Your task to perform on an android device: check google app version Image 0: 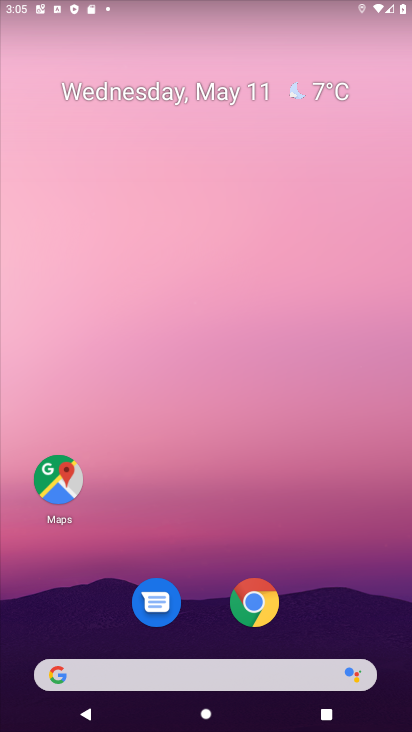
Step 0: press home button
Your task to perform on an android device: check google app version Image 1: 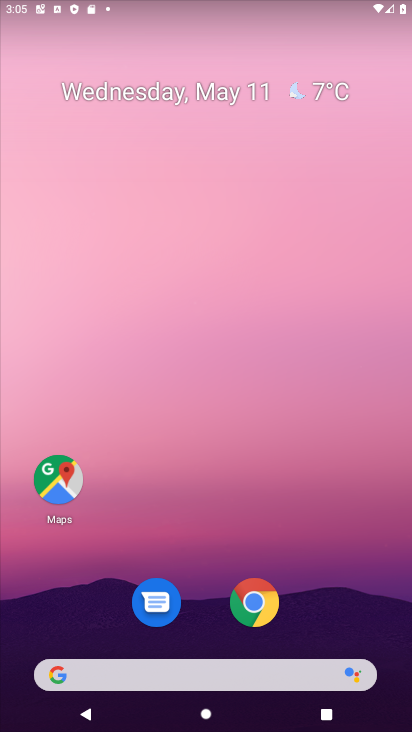
Step 1: drag from (323, 569) to (407, 296)
Your task to perform on an android device: check google app version Image 2: 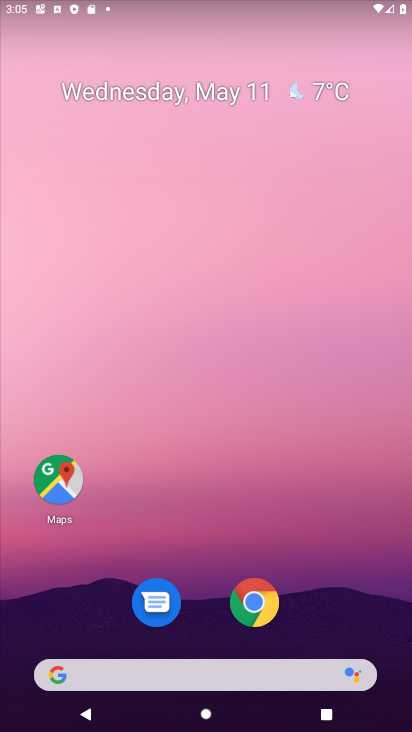
Step 2: drag from (205, 557) to (366, 128)
Your task to perform on an android device: check google app version Image 3: 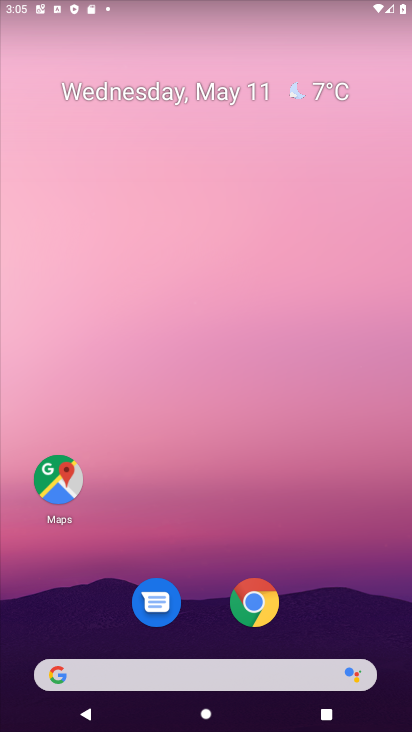
Step 3: click (122, 673)
Your task to perform on an android device: check google app version Image 4: 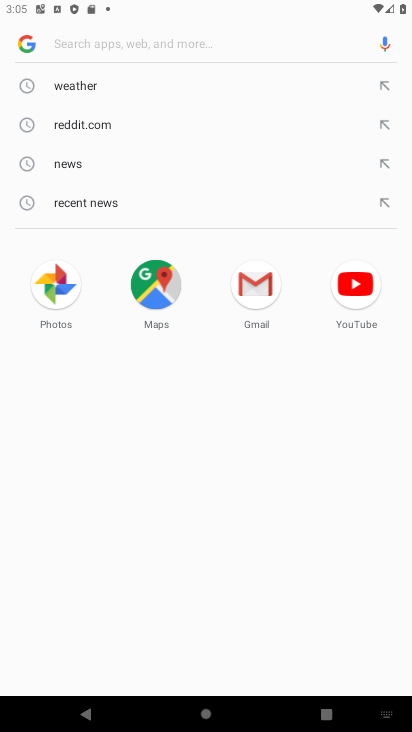
Step 4: click (206, 33)
Your task to perform on an android device: check google app version Image 5: 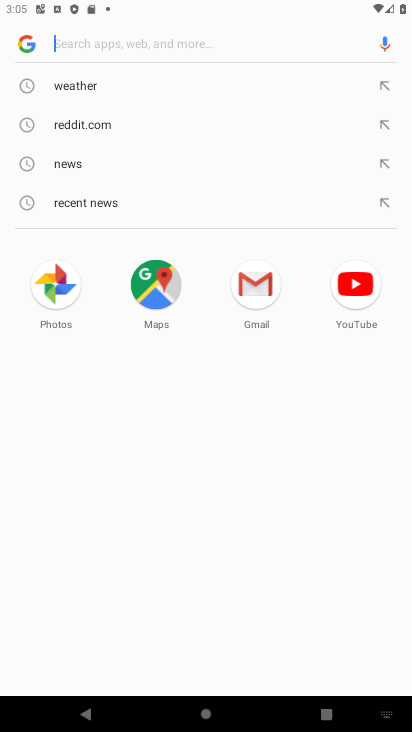
Step 5: click (207, 34)
Your task to perform on an android device: check google app version Image 6: 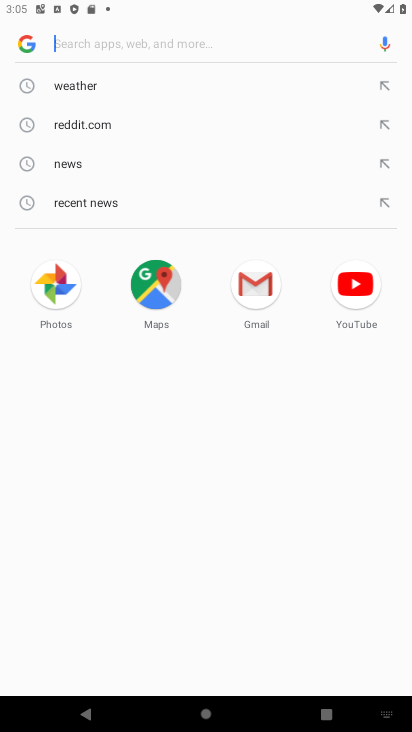
Step 6: click (207, 34)
Your task to perform on an android device: check google app version Image 7: 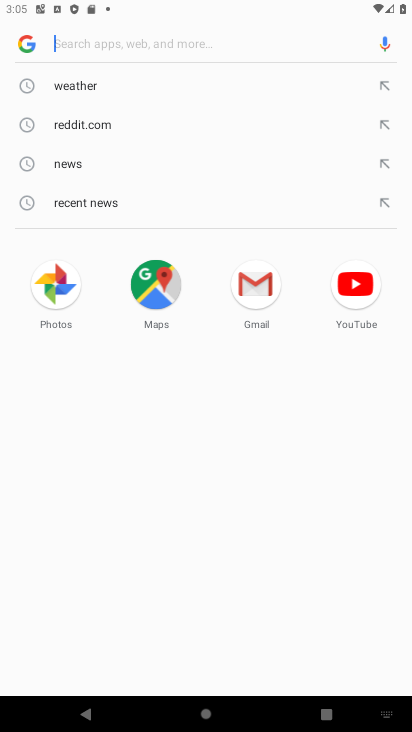
Step 7: click (120, 53)
Your task to perform on an android device: check google app version Image 8: 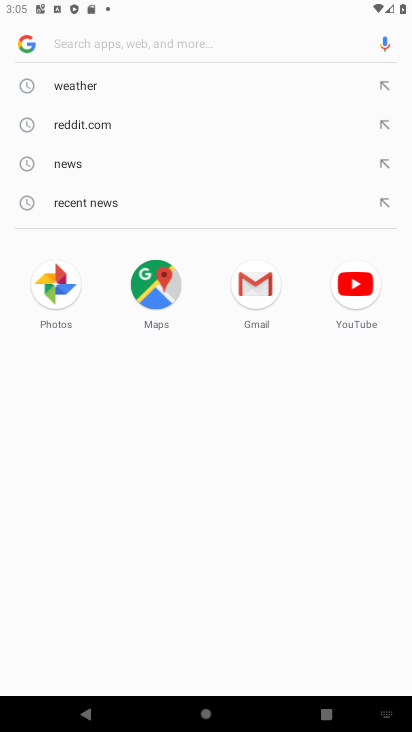
Step 8: click (26, 47)
Your task to perform on an android device: check google app version Image 9: 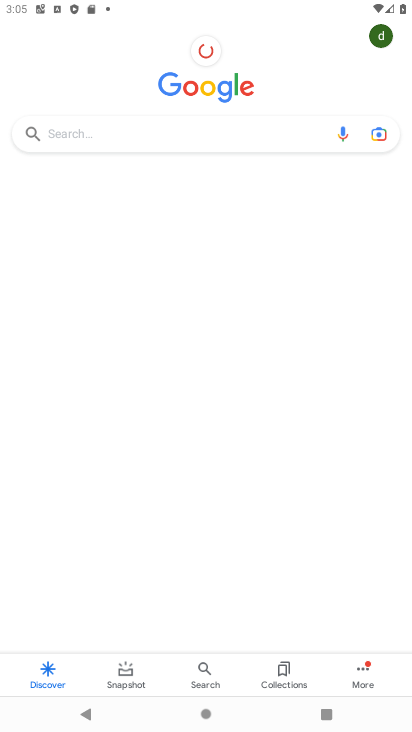
Step 9: click (380, 38)
Your task to perform on an android device: check google app version Image 10: 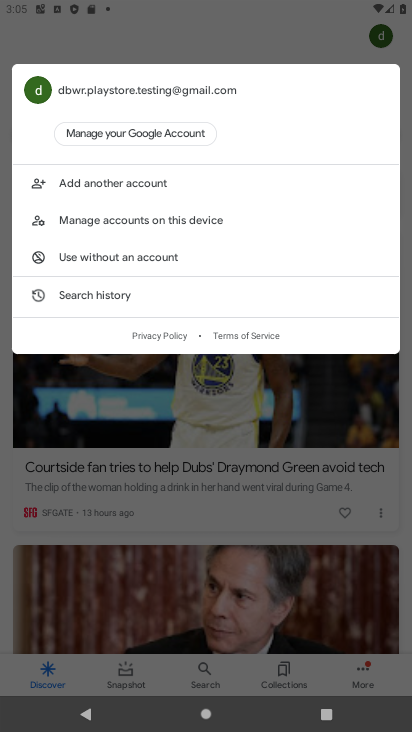
Step 10: click (194, 223)
Your task to perform on an android device: check google app version Image 11: 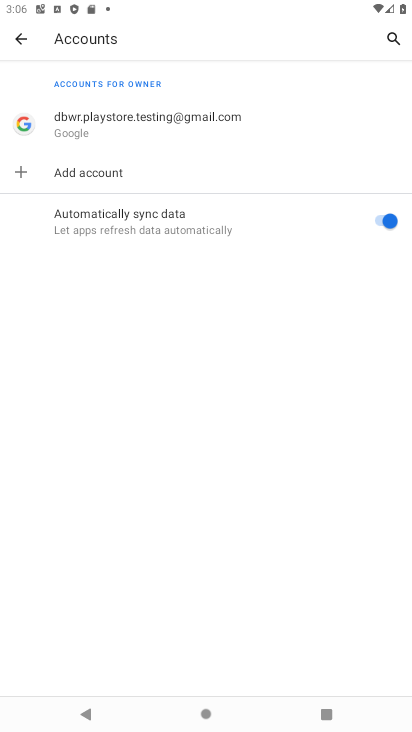
Step 11: click (24, 35)
Your task to perform on an android device: check google app version Image 12: 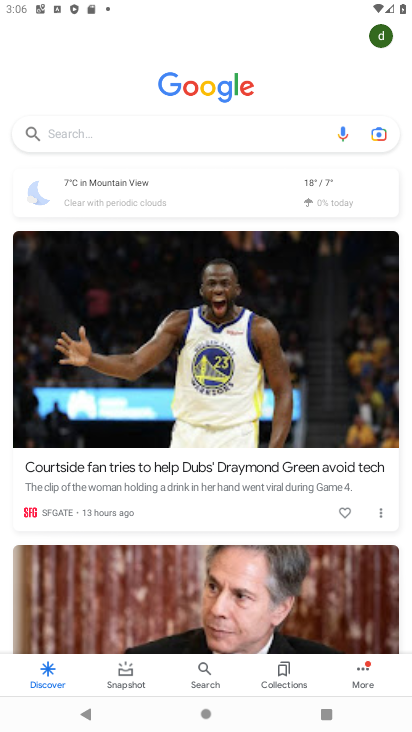
Step 12: click (267, 666)
Your task to perform on an android device: check google app version Image 13: 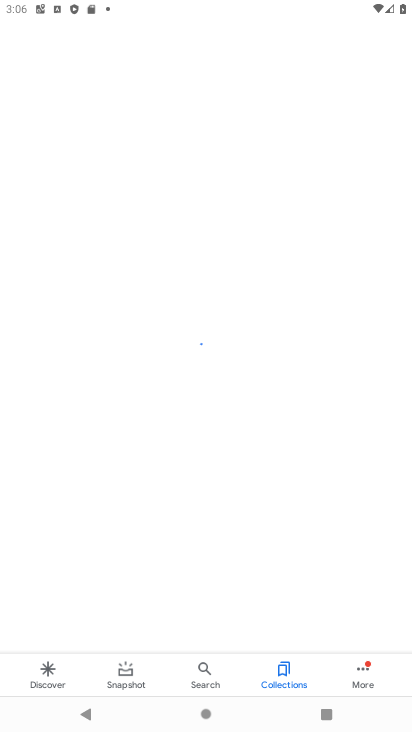
Step 13: click (360, 677)
Your task to perform on an android device: check google app version Image 14: 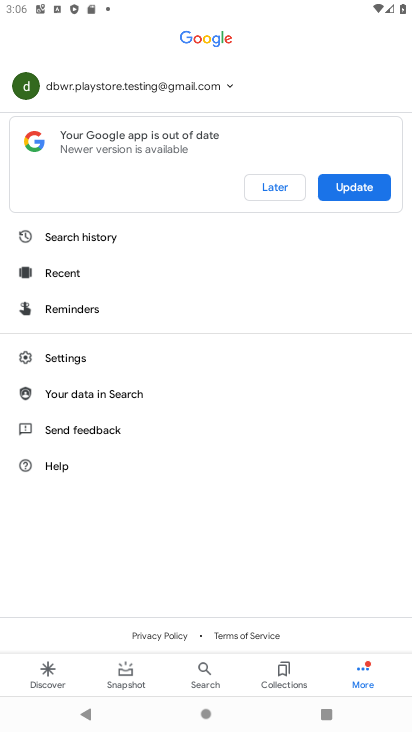
Step 14: click (138, 362)
Your task to perform on an android device: check google app version Image 15: 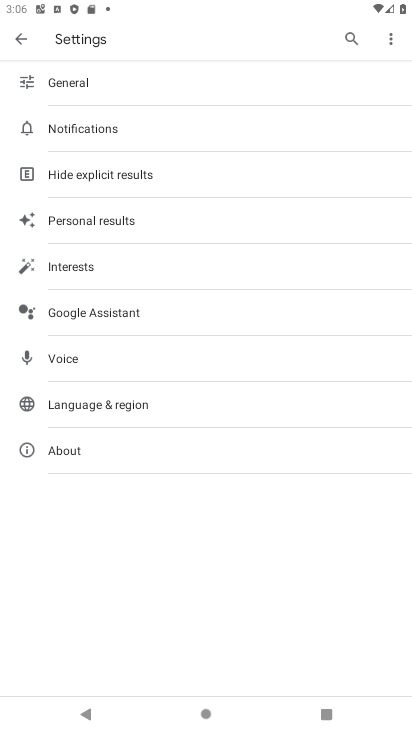
Step 15: click (214, 438)
Your task to perform on an android device: check google app version Image 16: 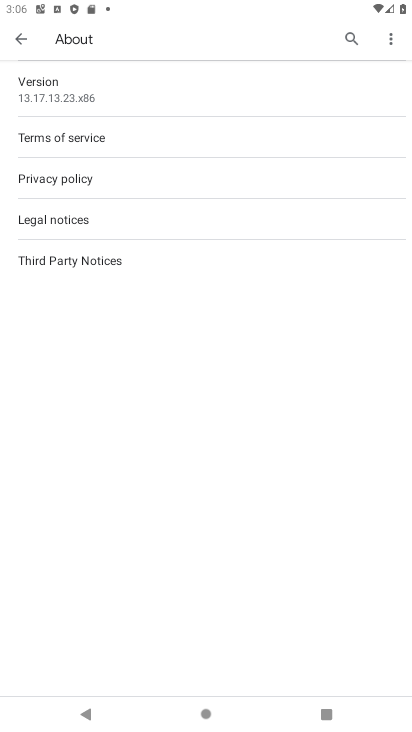
Step 16: task complete